Your task to perform on an android device: Open network settings Image 0: 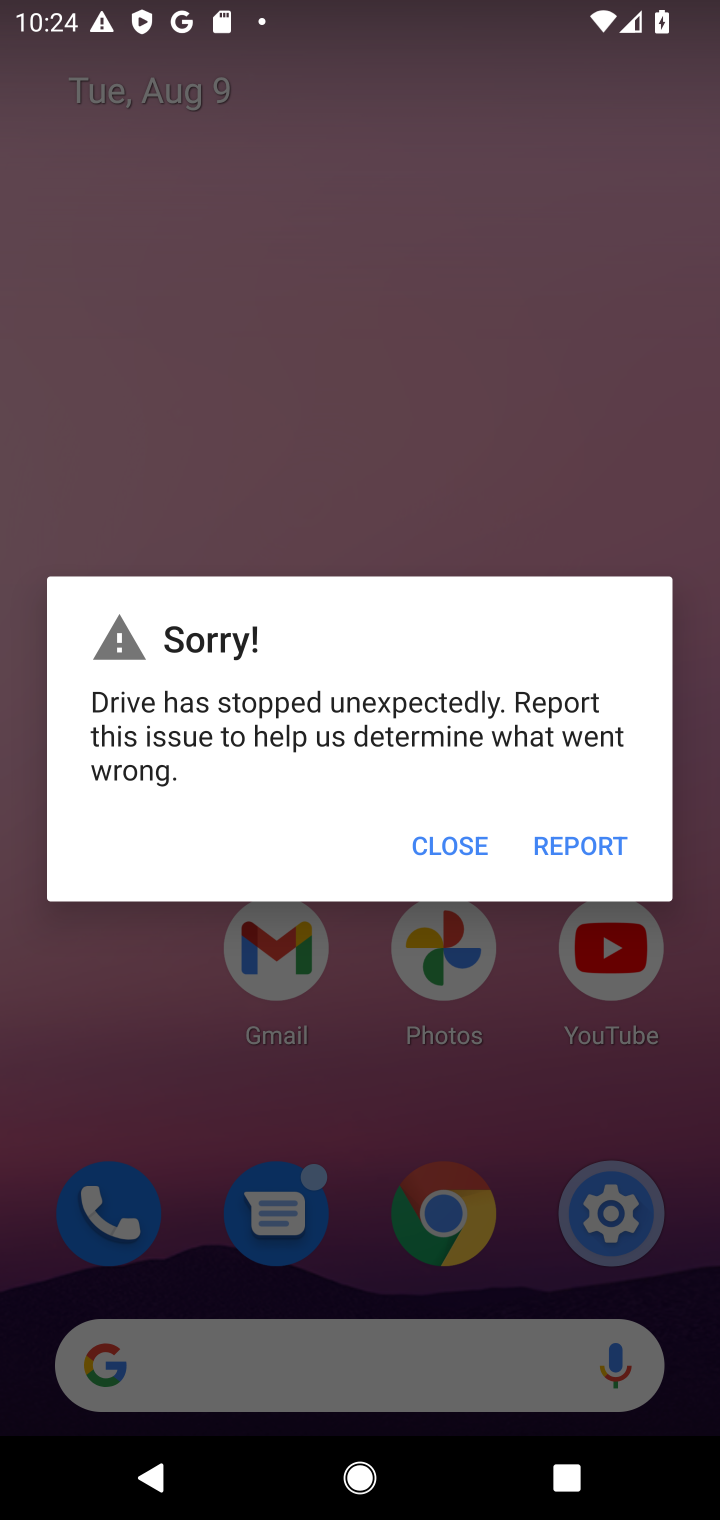
Step 0: click (459, 867)
Your task to perform on an android device: Open network settings Image 1: 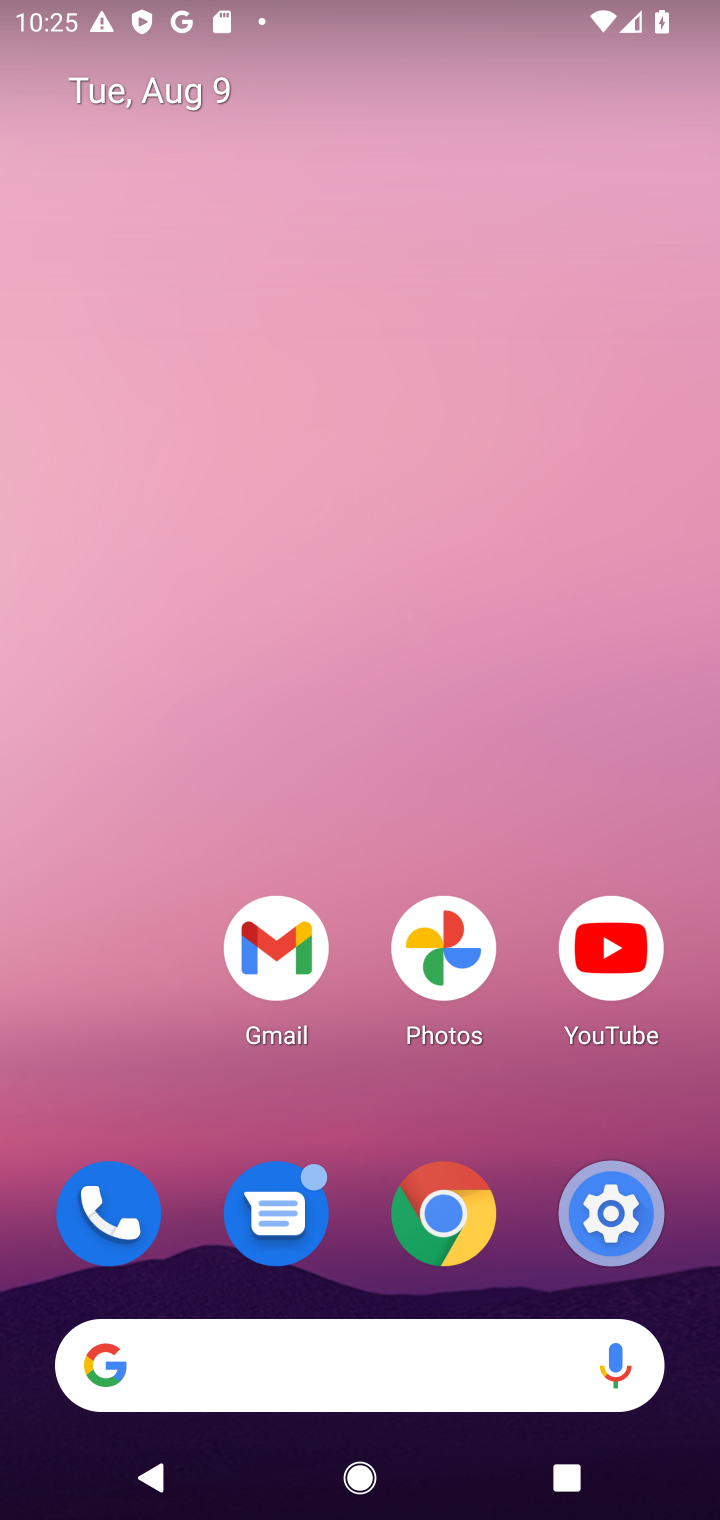
Step 1: drag from (379, 1265) to (346, 192)
Your task to perform on an android device: Open network settings Image 2: 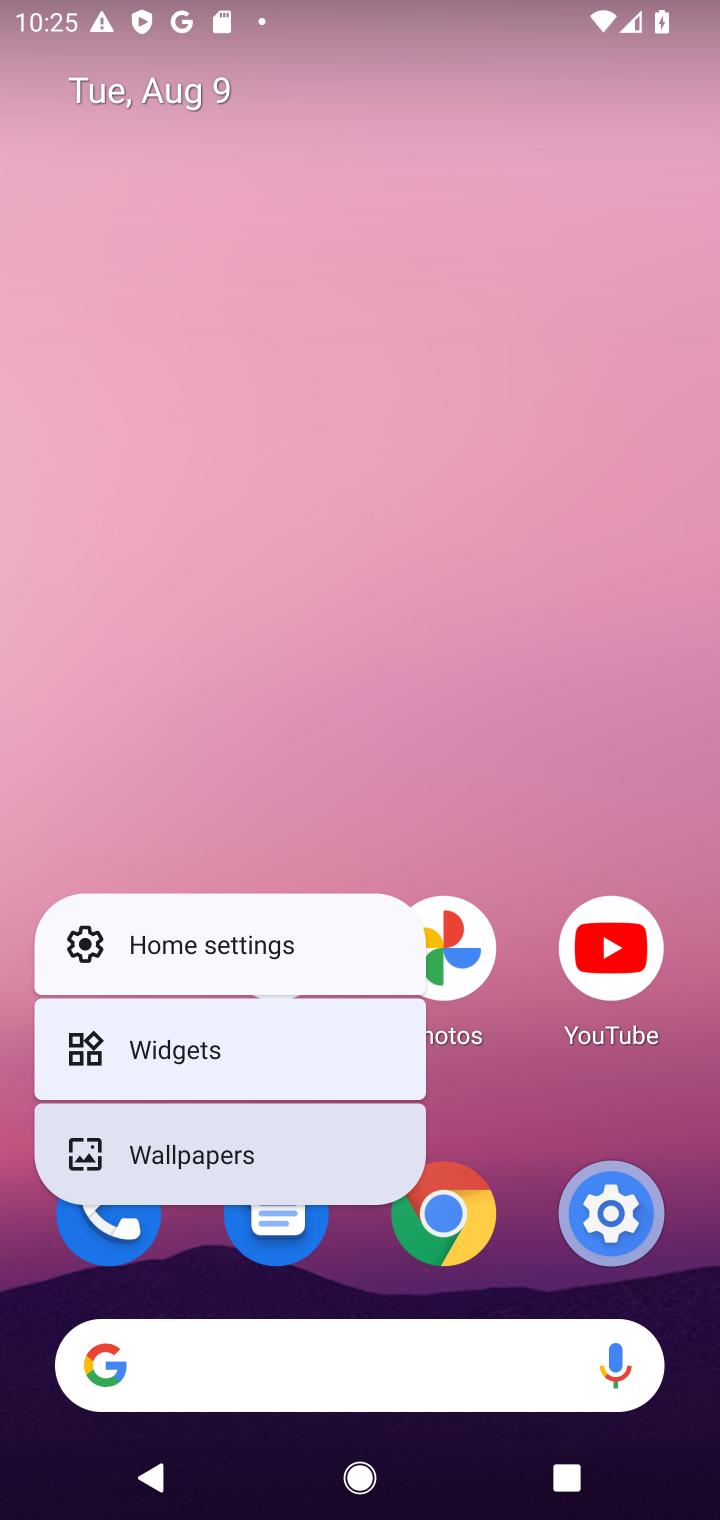
Step 2: click (552, 709)
Your task to perform on an android device: Open network settings Image 3: 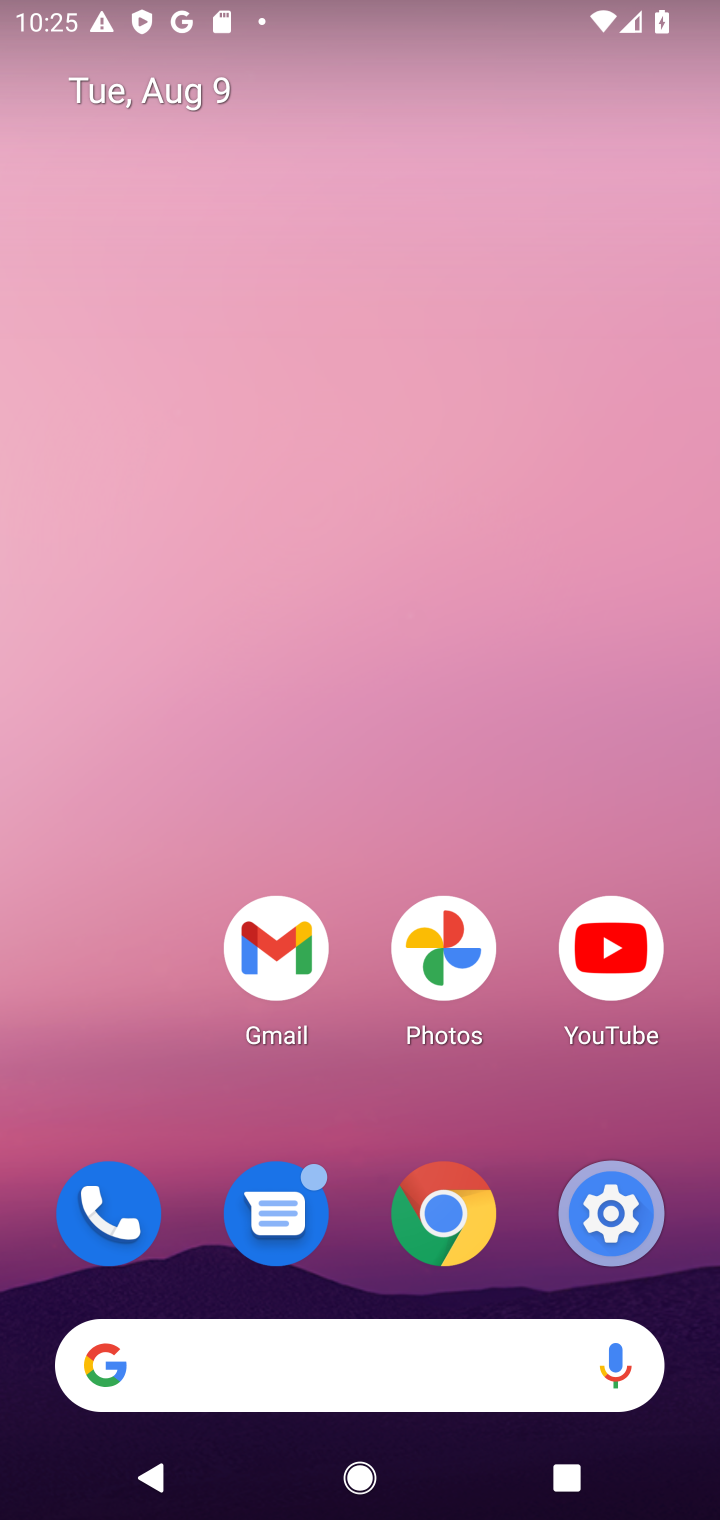
Step 3: click (645, 1213)
Your task to perform on an android device: Open network settings Image 4: 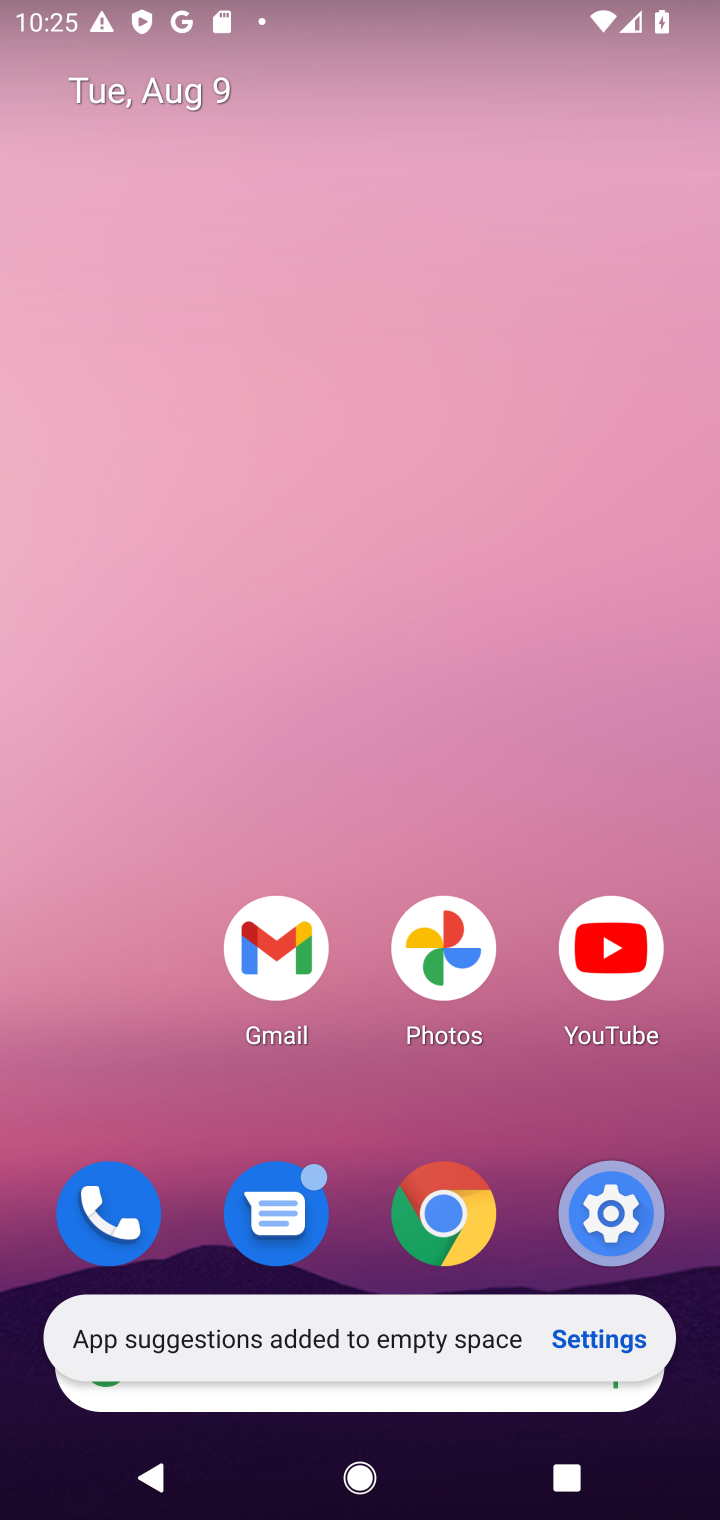
Step 4: click (613, 1200)
Your task to perform on an android device: Open network settings Image 5: 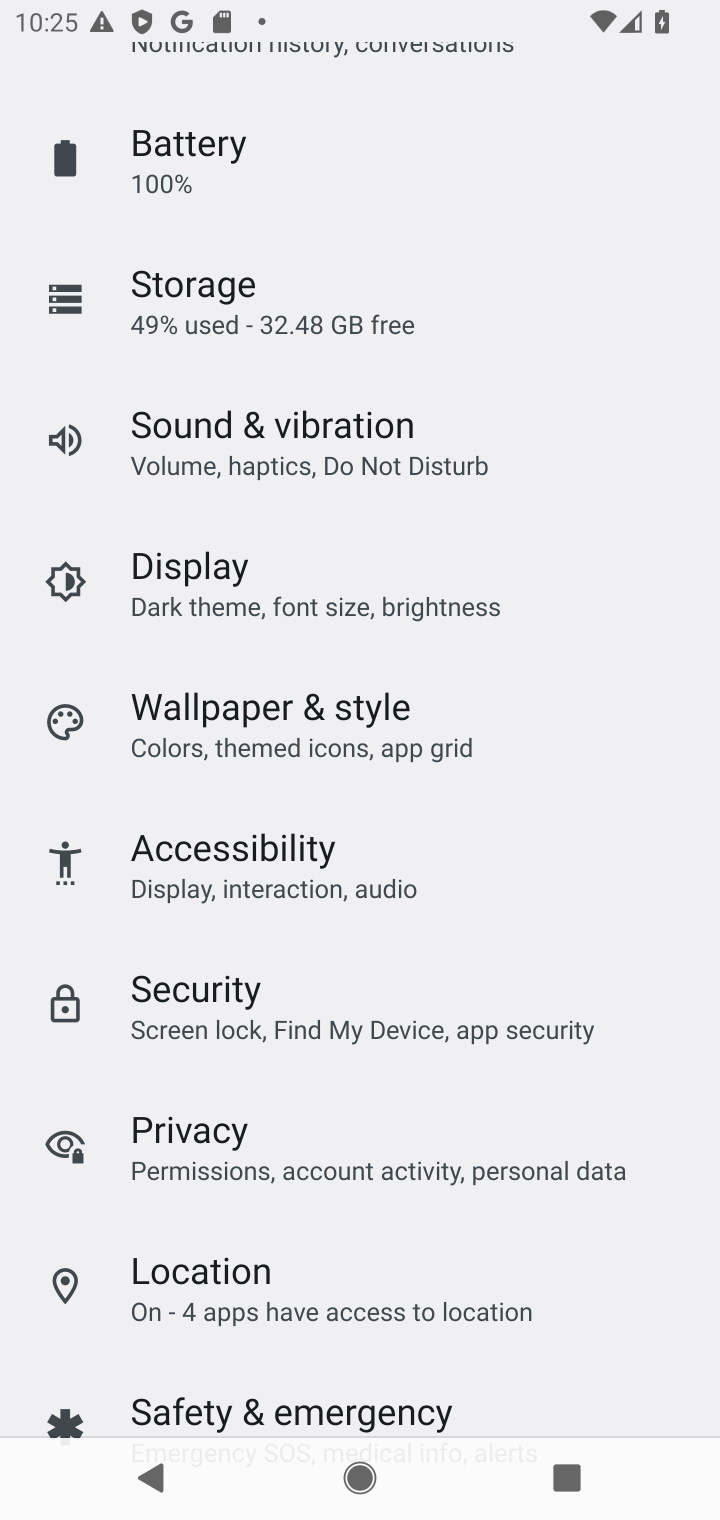
Step 5: drag from (267, 349) to (135, 1118)
Your task to perform on an android device: Open network settings Image 6: 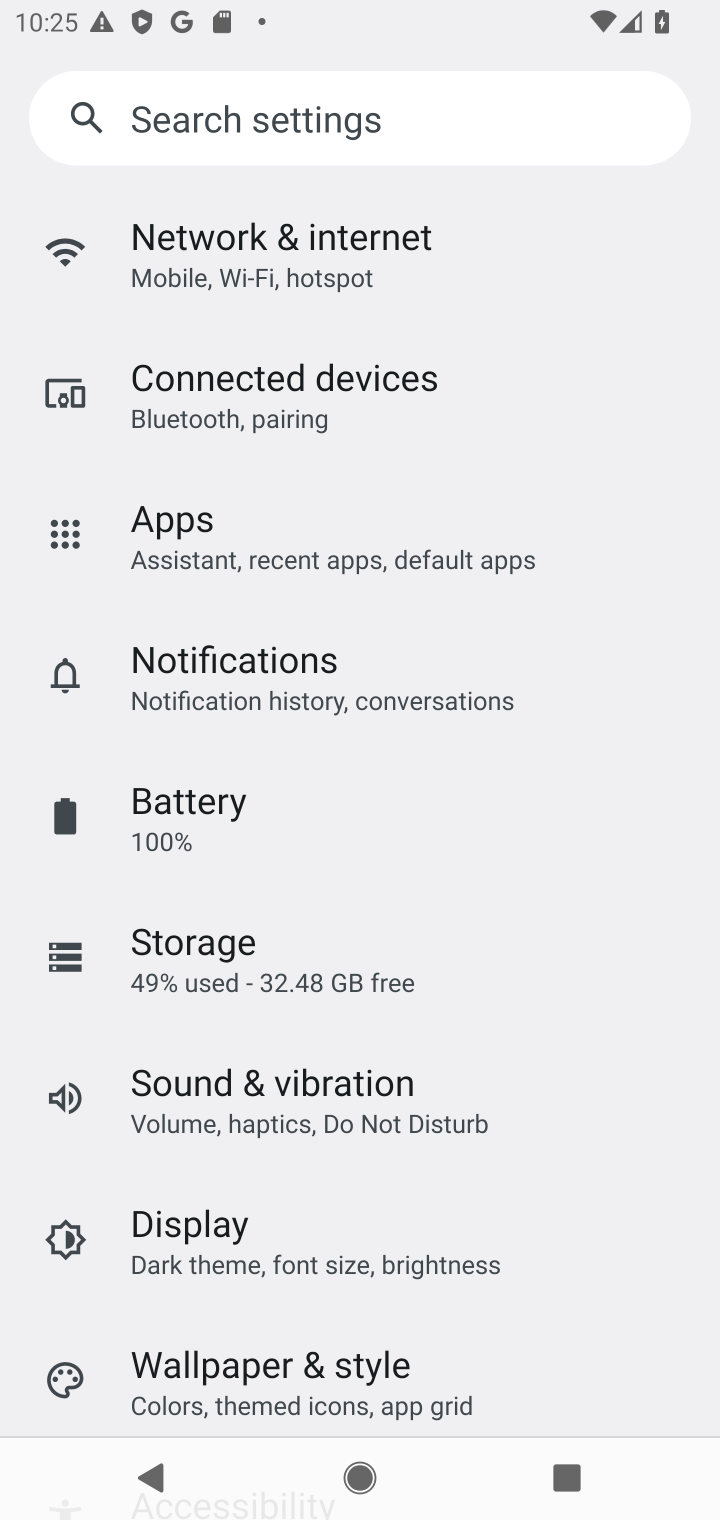
Step 6: click (203, 243)
Your task to perform on an android device: Open network settings Image 7: 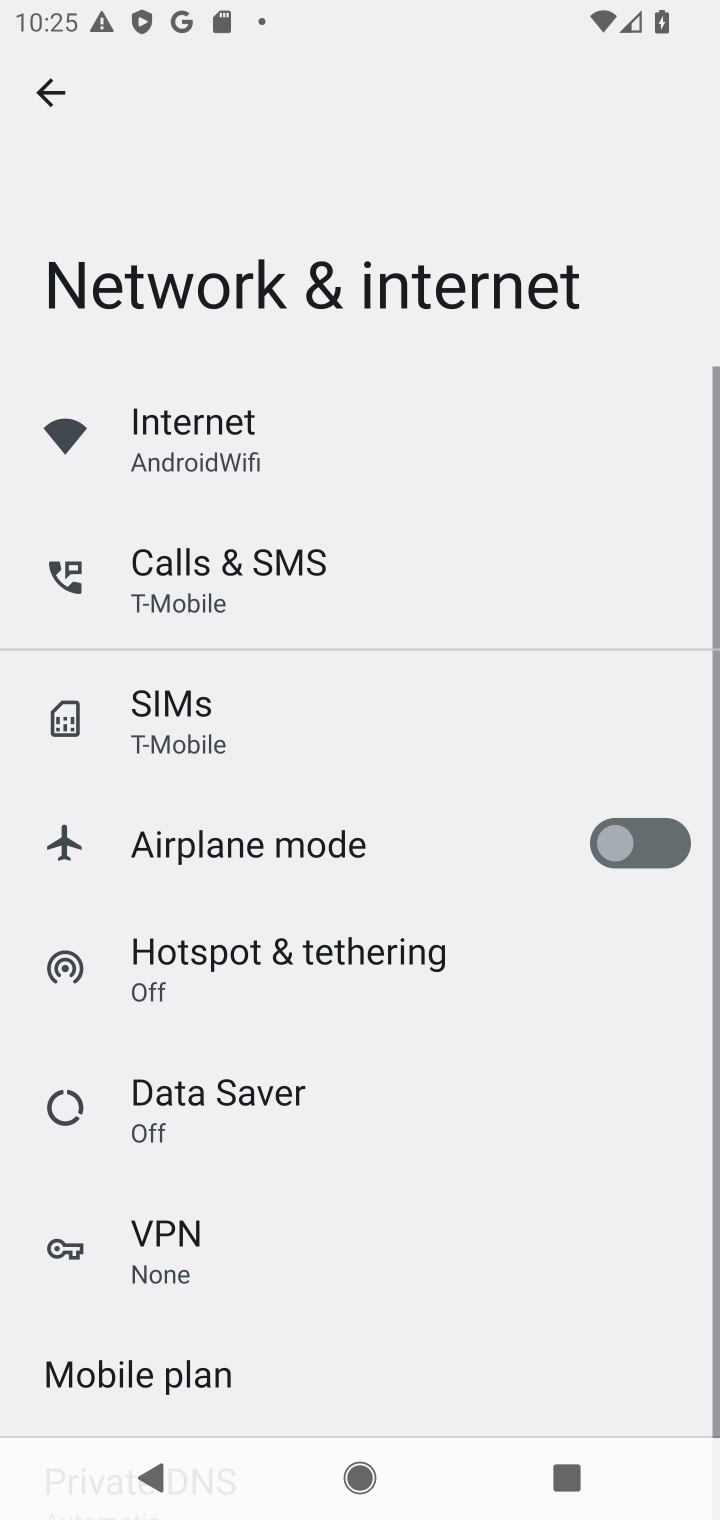
Step 7: click (256, 412)
Your task to perform on an android device: Open network settings Image 8: 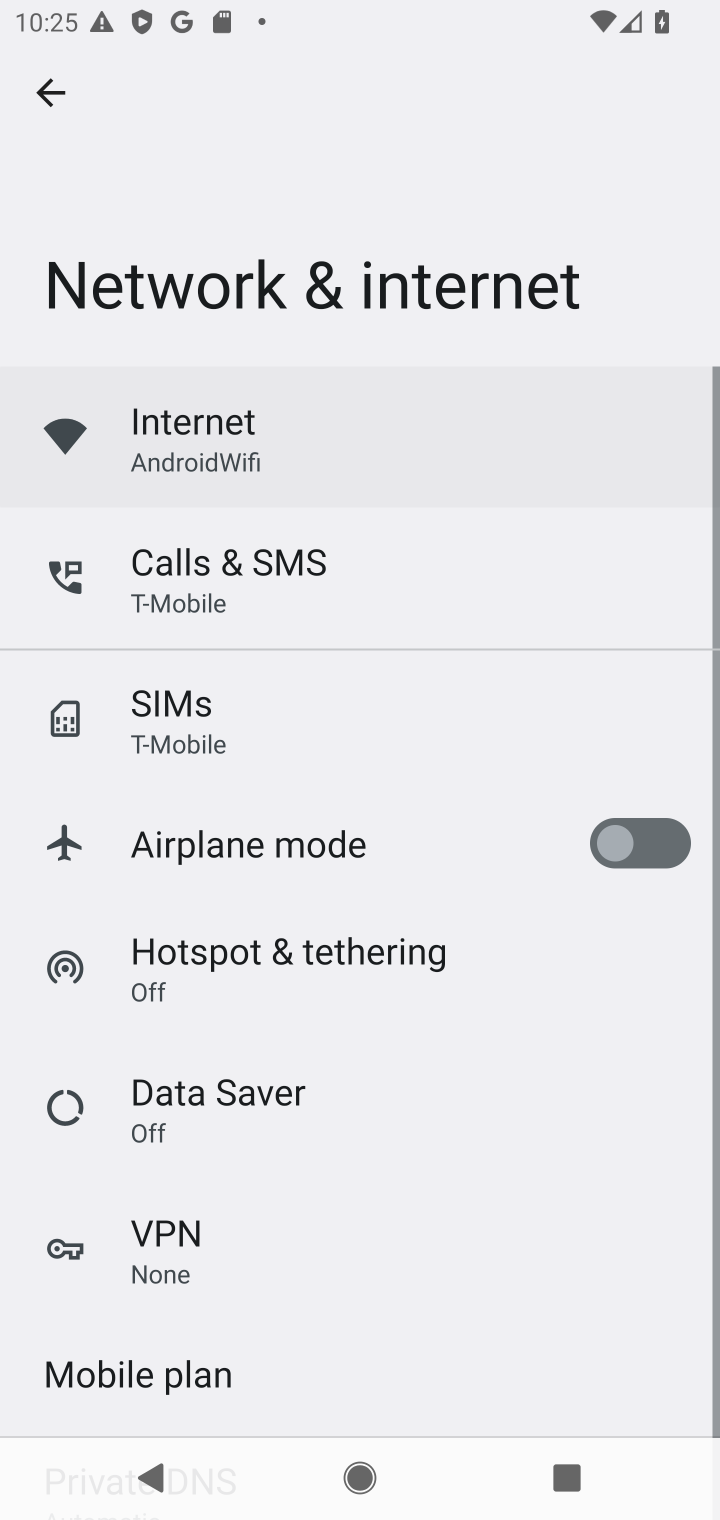
Step 8: task complete